Your task to perform on an android device: Go to Yahoo.com Image 0: 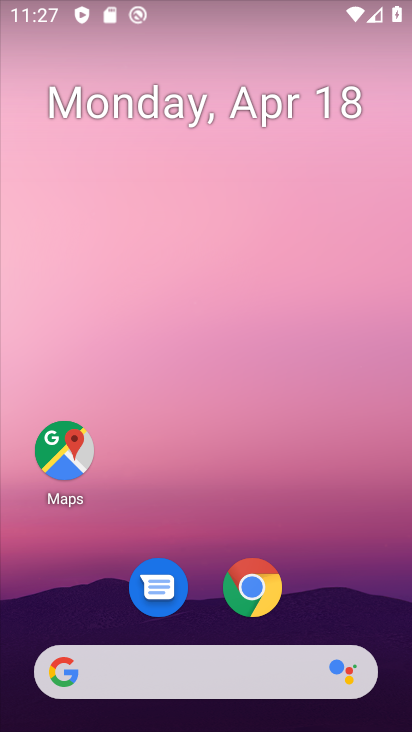
Step 0: click (259, 589)
Your task to perform on an android device: Go to Yahoo.com Image 1: 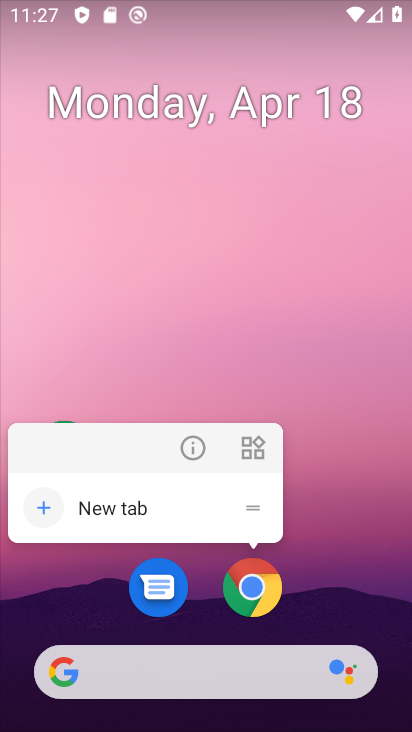
Step 1: click (256, 590)
Your task to perform on an android device: Go to Yahoo.com Image 2: 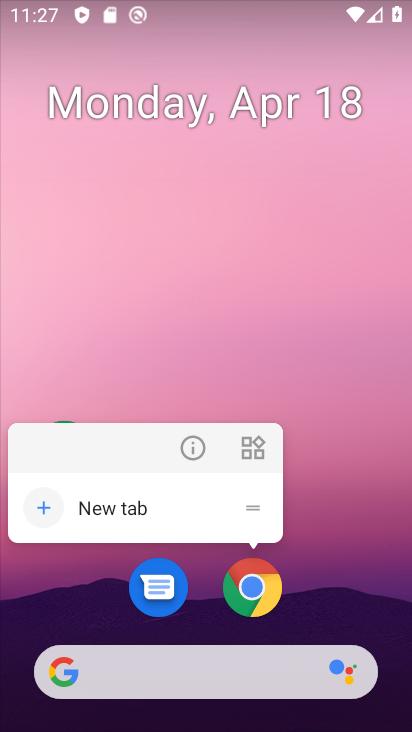
Step 2: click (258, 607)
Your task to perform on an android device: Go to Yahoo.com Image 3: 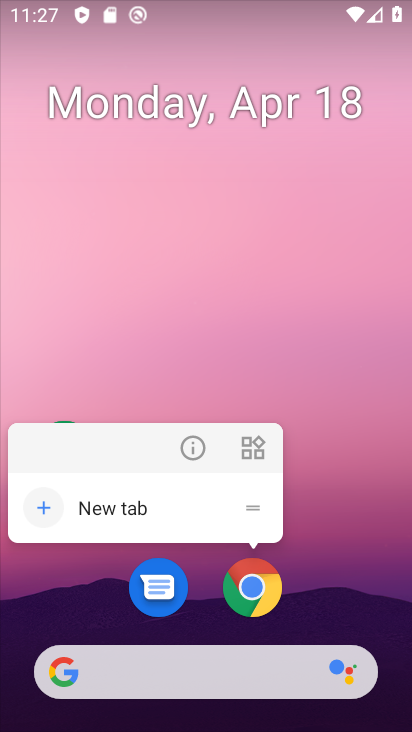
Step 3: click (256, 596)
Your task to perform on an android device: Go to Yahoo.com Image 4: 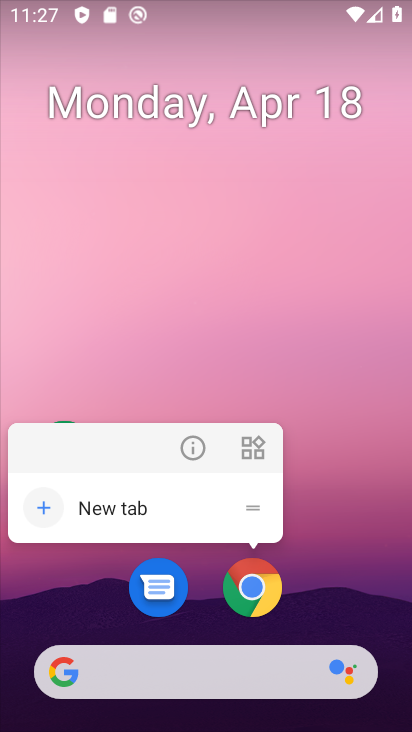
Step 4: click (258, 601)
Your task to perform on an android device: Go to Yahoo.com Image 5: 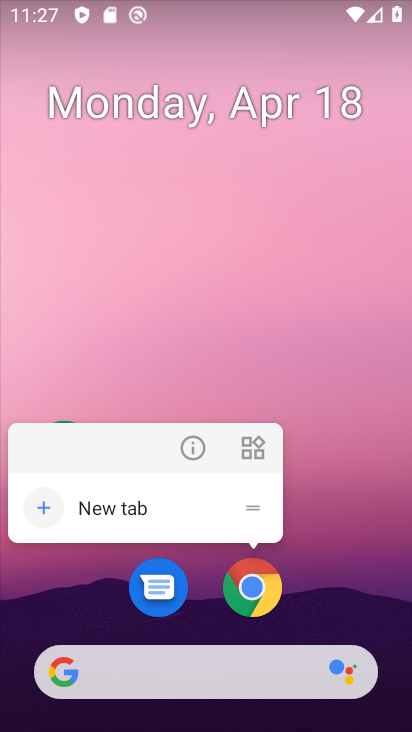
Step 5: click (269, 583)
Your task to perform on an android device: Go to Yahoo.com Image 6: 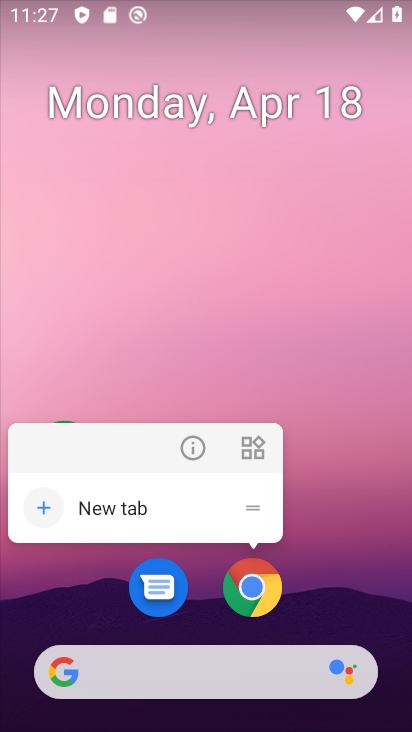
Step 6: click (258, 592)
Your task to perform on an android device: Go to Yahoo.com Image 7: 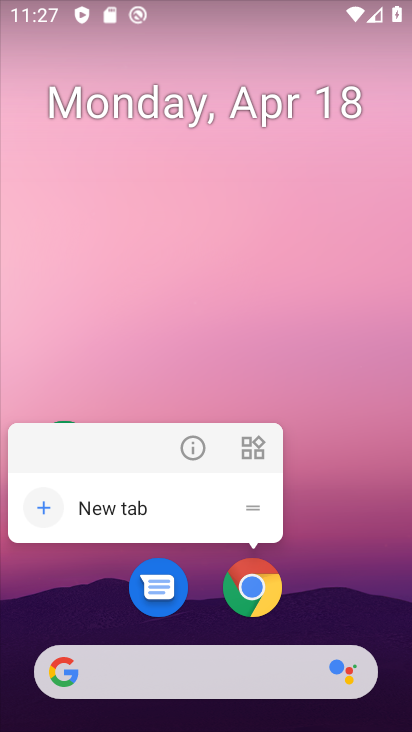
Step 7: click (241, 593)
Your task to perform on an android device: Go to Yahoo.com Image 8: 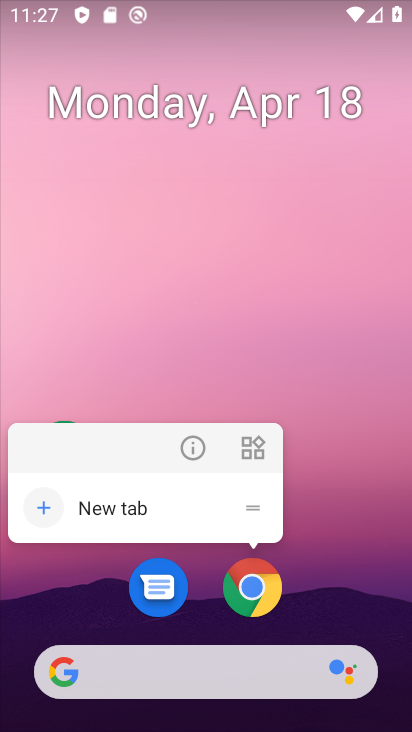
Step 8: click (250, 588)
Your task to perform on an android device: Go to Yahoo.com Image 9: 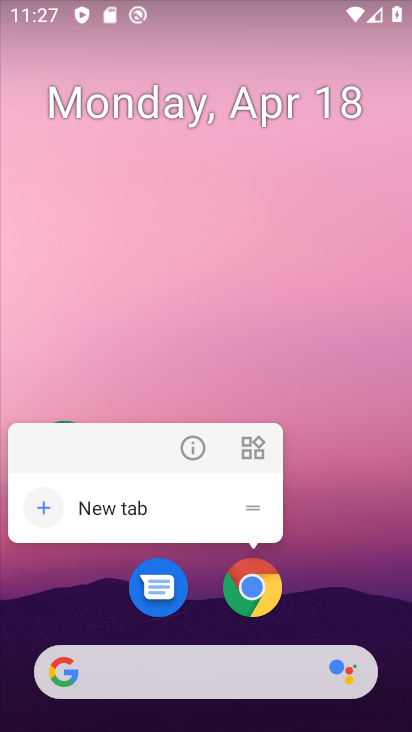
Step 9: click (254, 597)
Your task to perform on an android device: Go to Yahoo.com Image 10: 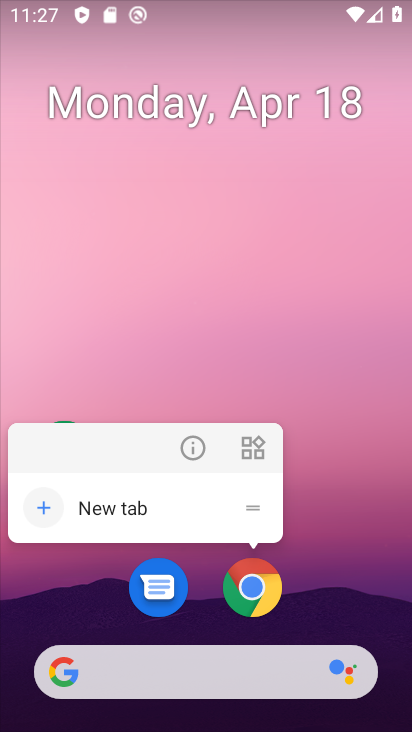
Step 10: click (256, 592)
Your task to perform on an android device: Go to Yahoo.com Image 11: 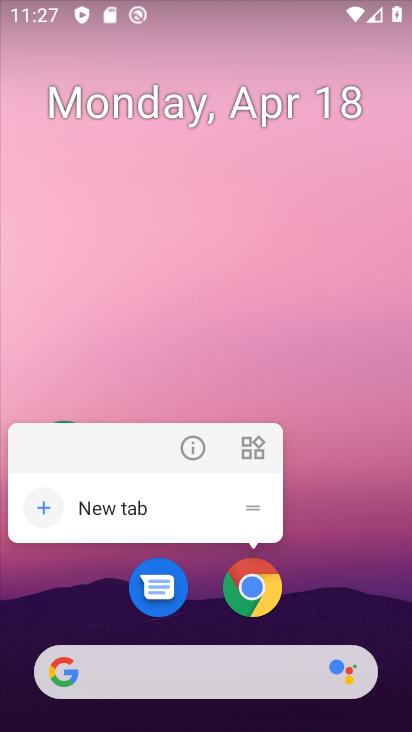
Step 11: click (252, 599)
Your task to perform on an android device: Go to Yahoo.com Image 12: 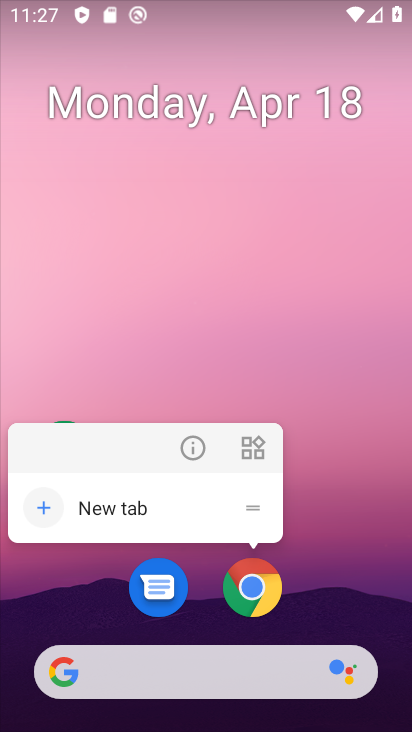
Step 12: click (252, 599)
Your task to perform on an android device: Go to Yahoo.com Image 13: 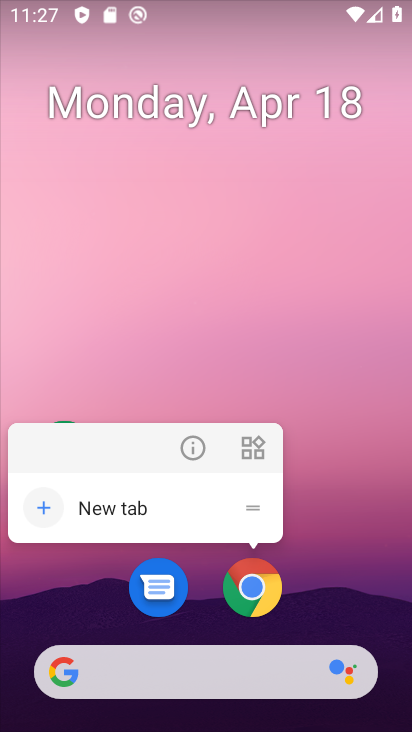
Step 13: click (252, 599)
Your task to perform on an android device: Go to Yahoo.com Image 14: 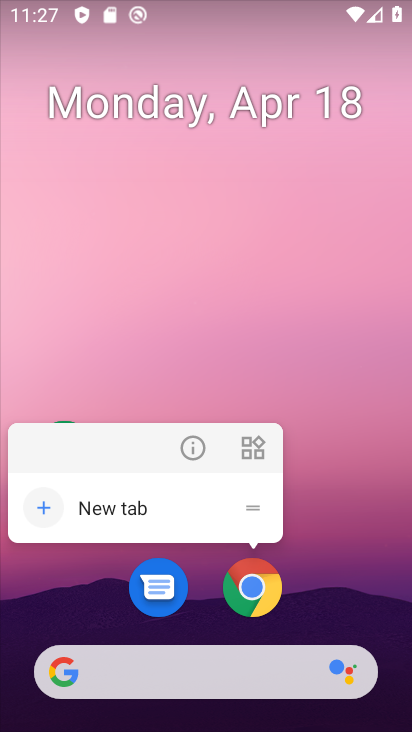
Step 14: click (257, 587)
Your task to perform on an android device: Go to Yahoo.com Image 15: 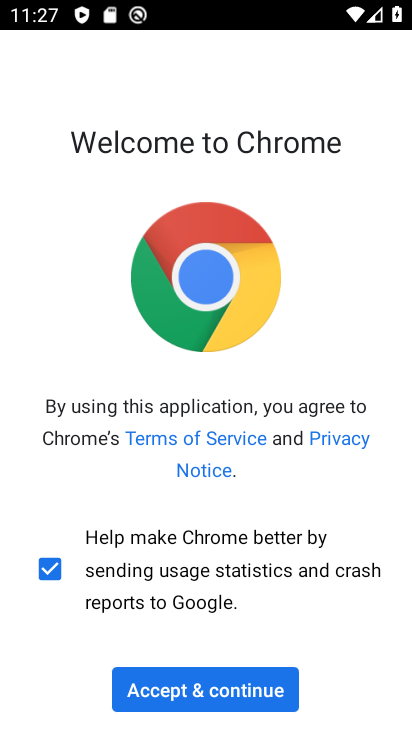
Step 15: click (237, 689)
Your task to perform on an android device: Go to Yahoo.com Image 16: 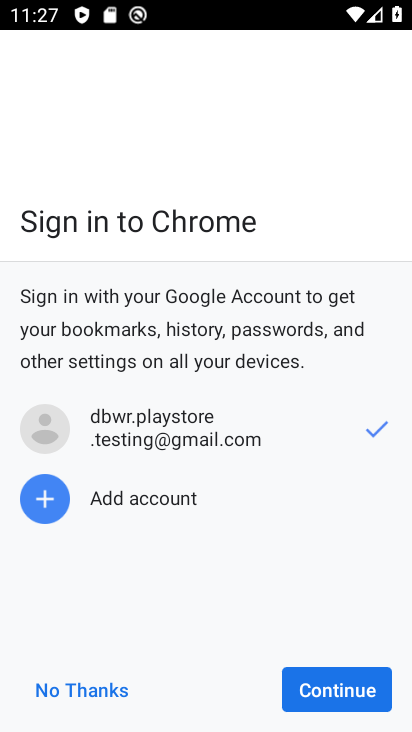
Step 16: click (347, 684)
Your task to perform on an android device: Go to Yahoo.com Image 17: 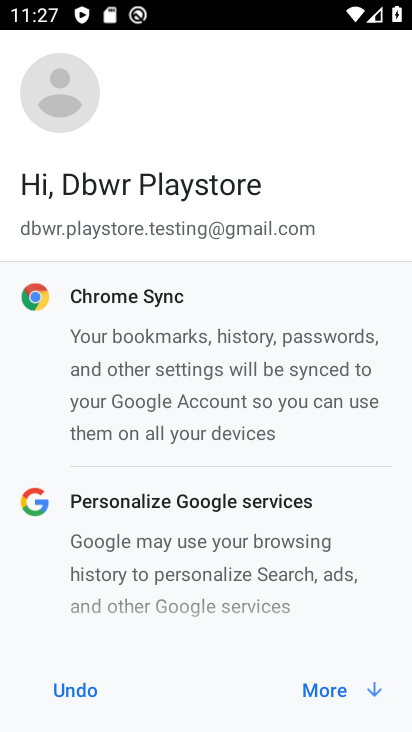
Step 17: click (344, 690)
Your task to perform on an android device: Go to Yahoo.com Image 18: 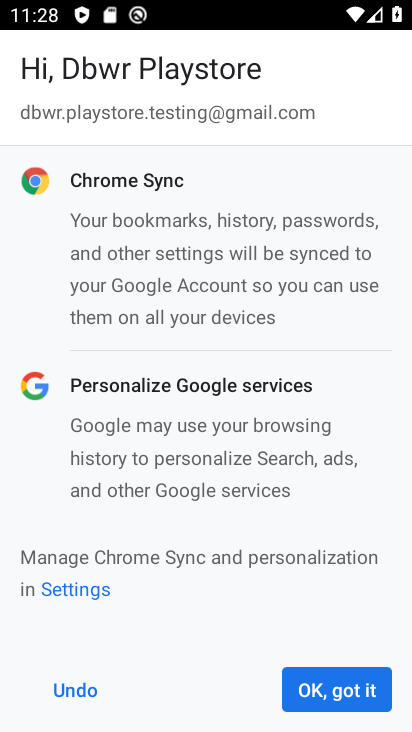
Step 18: click (344, 690)
Your task to perform on an android device: Go to Yahoo.com Image 19: 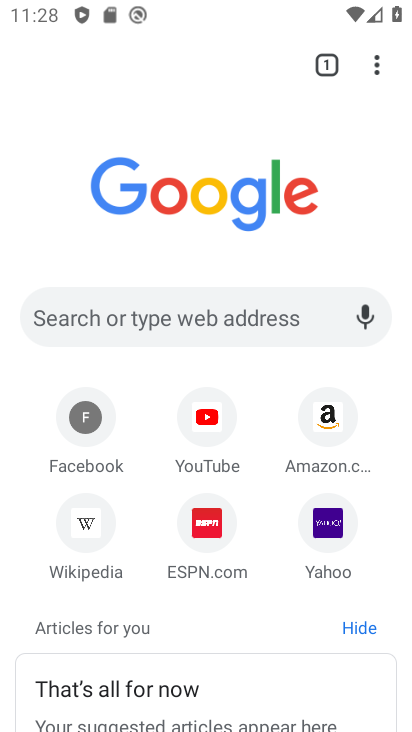
Step 19: click (328, 534)
Your task to perform on an android device: Go to Yahoo.com Image 20: 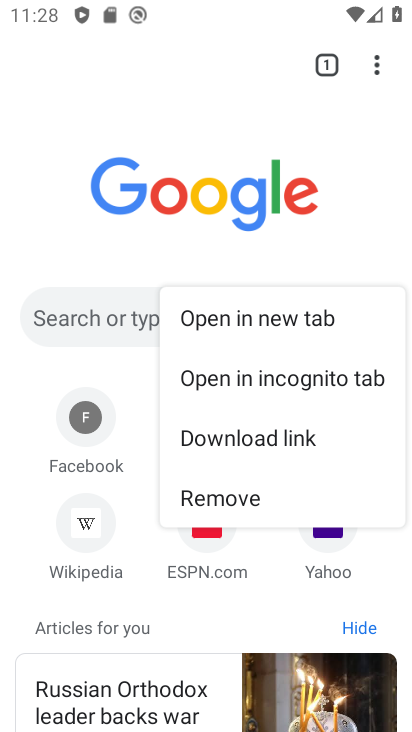
Step 20: click (328, 540)
Your task to perform on an android device: Go to Yahoo.com Image 21: 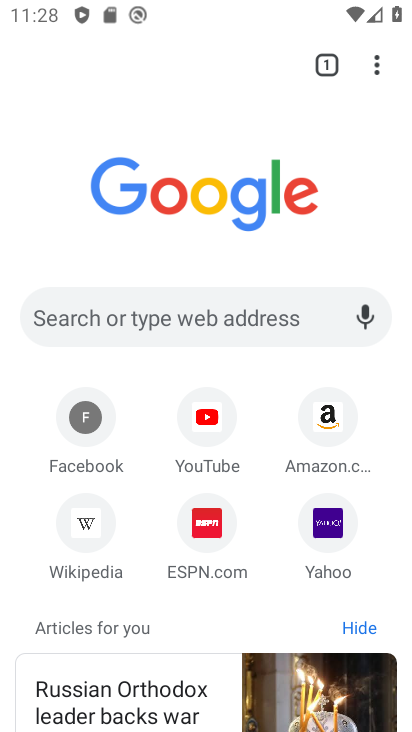
Step 21: click (331, 536)
Your task to perform on an android device: Go to Yahoo.com Image 22: 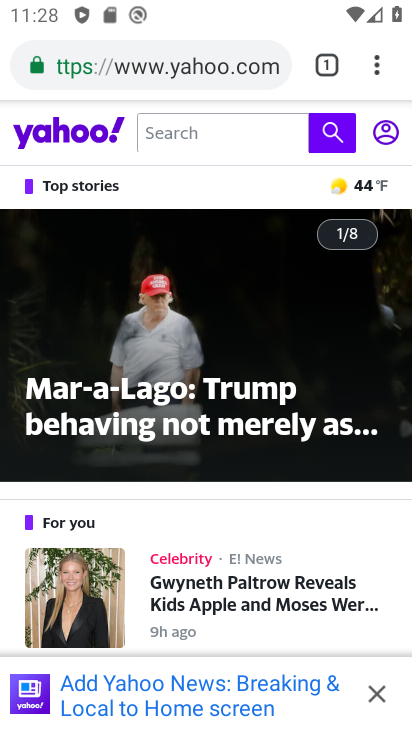
Step 22: task complete